Your task to perform on an android device: turn on data saver in the chrome app Image 0: 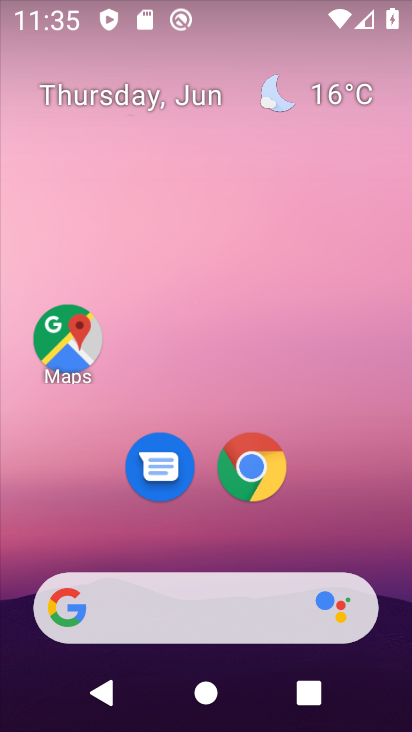
Step 0: click (252, 470)
Your task to perform on an android device: turn on data saver in the chrome app Image 1: 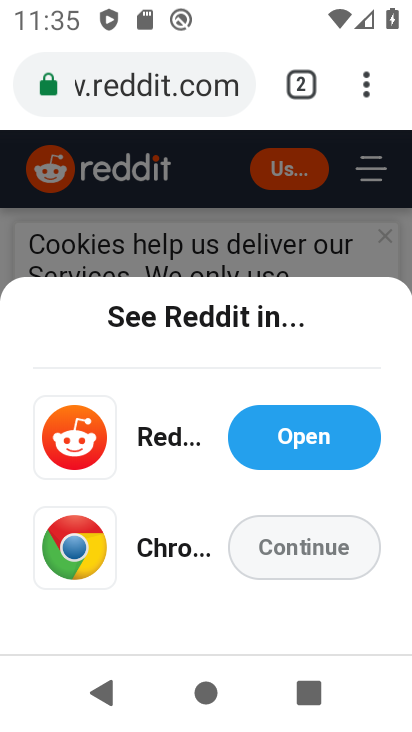
Step 1: click (364, 93)
Your task to perform on an android device: turn on data saver in the chrome app Image 2: 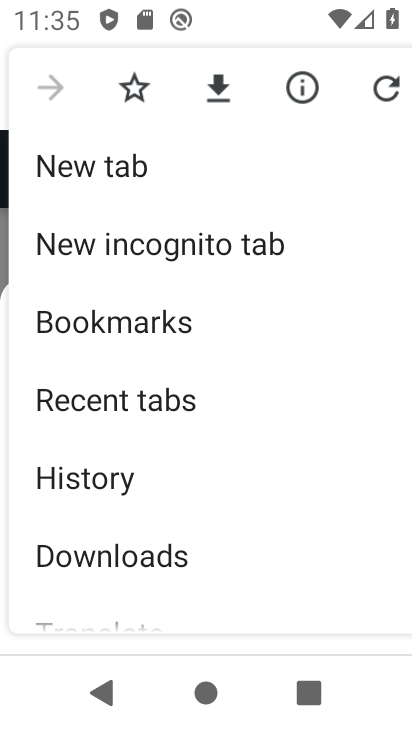
Step 2: drag from (217, 601) to (320, 248)
Your task to perform on an android device: turn on data saver in the chrome app Image 3: 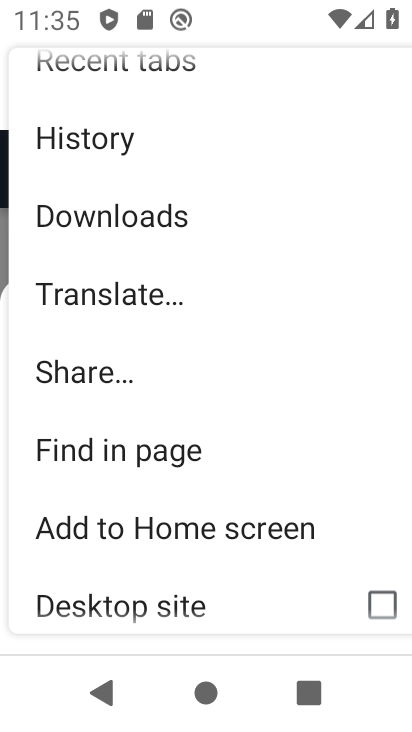
Step 3: drag from (305, 568) to (277, 254)
Your task to perform on an android device: turn on data saver in the chrome app Image 4: 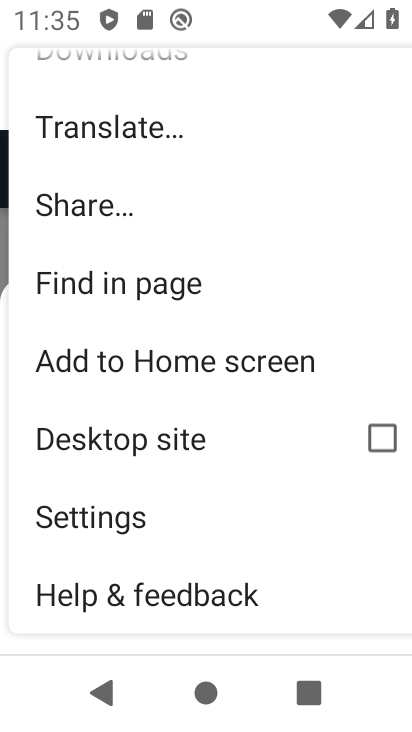
Step 4: click (89, 528)
Your task to perform on an android device: turn on data saver in the chrome app Image 5: 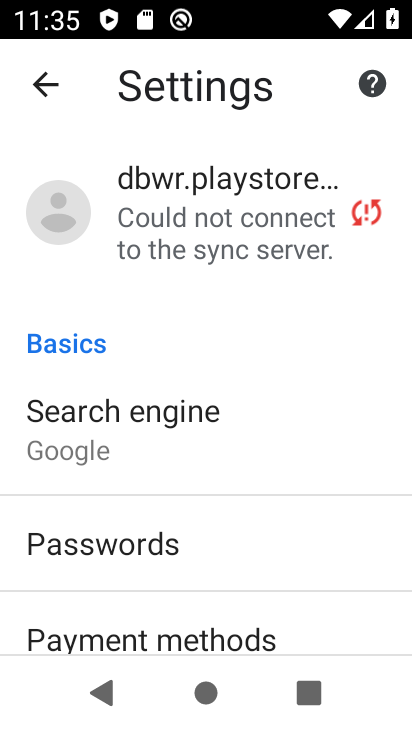
Step 5: drag from (302, 630) to (230, 218)
Your task to perform on an android device: turn on data saver in the chrome app Image 6: 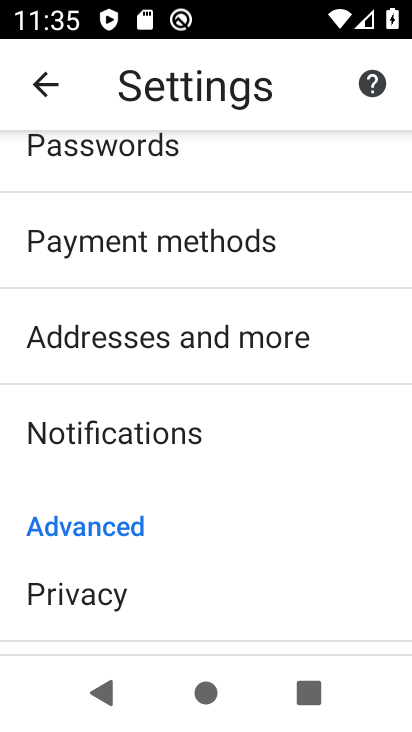
Step 6: drag from (234, 603) to (342, 228)
Your task to perform on an android device: turn on data saver in the chrome app Image 7: 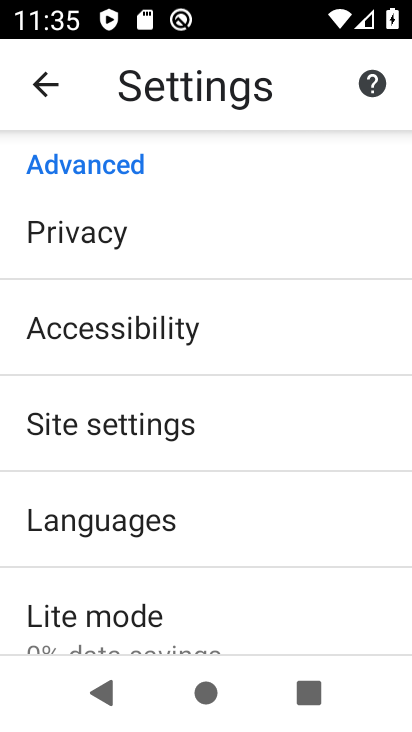
Step 7: drag from (109, 612) to (194, 316)
Your task to perform on an android device: turn on data saver in the chrome app Image 8: 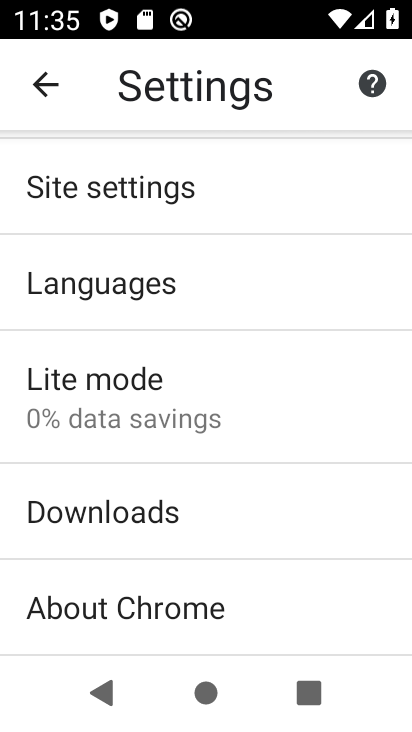
Step 8: click (97, 419)
Your task to perform on an android device: turn on data saver in the chrome app Image 9: 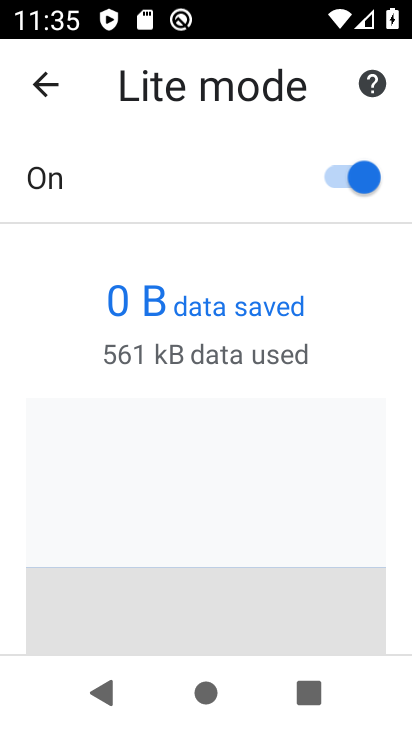
Step 9: task complete